Your task to perform on an android device: What's on my calendar today? Image 0: 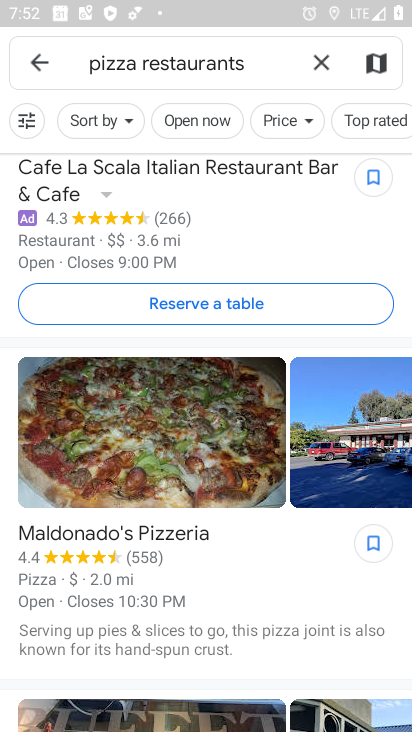
Step 0: press home button
Your task to perform on an android device: What's on my calendar today? Image 1: 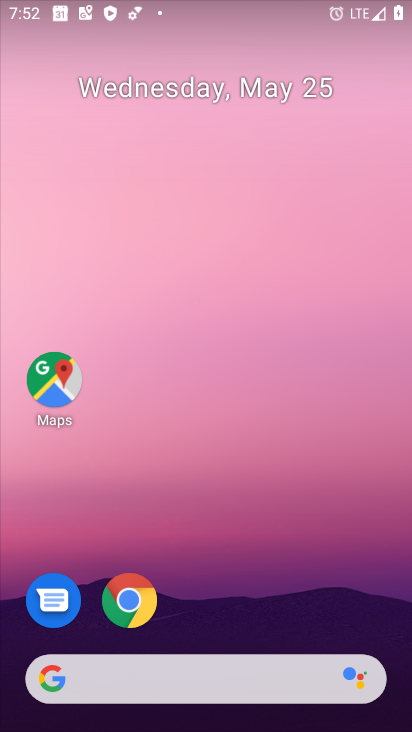
Step 1: drag from (282, 528) to (235, 82)
Your task to perform on an android device: What's on my calendar today? Image 2: 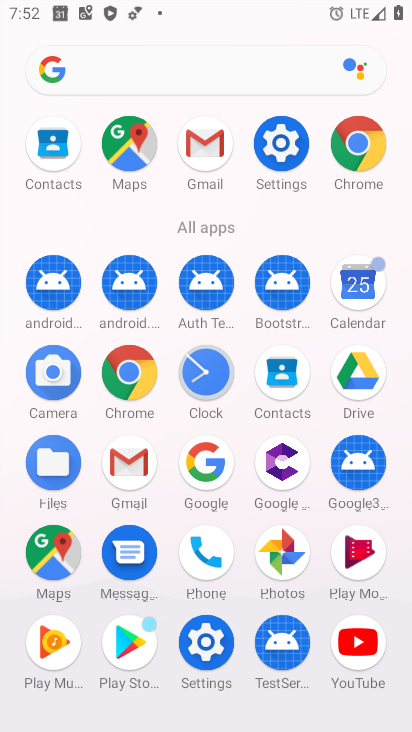
Step 2: click (353, 287)
Your task to perform on an android device: What's on my calendar today? Image 3: 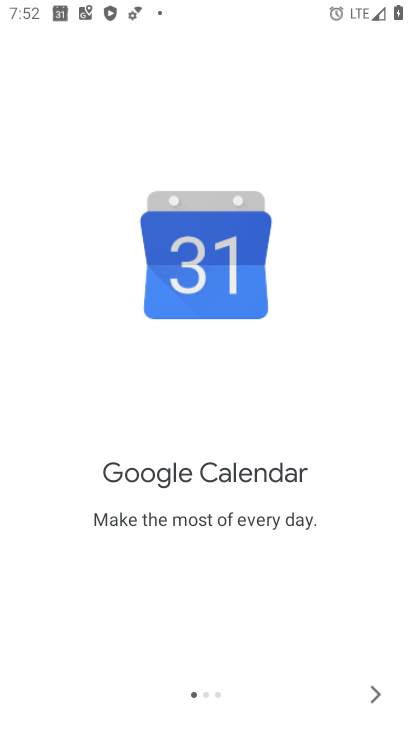
Step 3: click (375, 685)
Your task to perform on an android device: What's on my calendar today? Image 4: 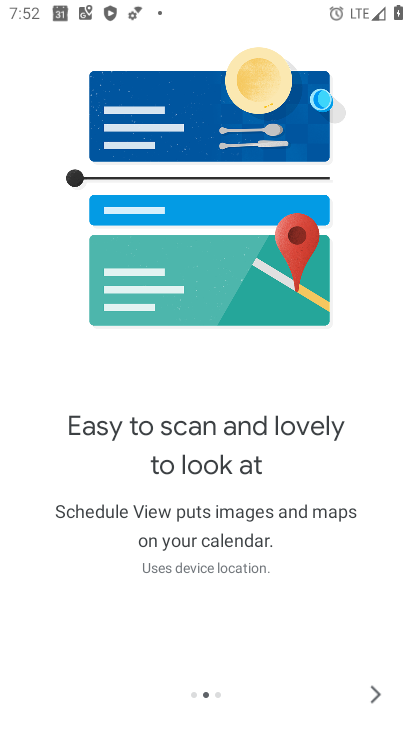
Step 4: click (375, 685)
Your task to perform on an android device: What's on my calendar today? Image 5: 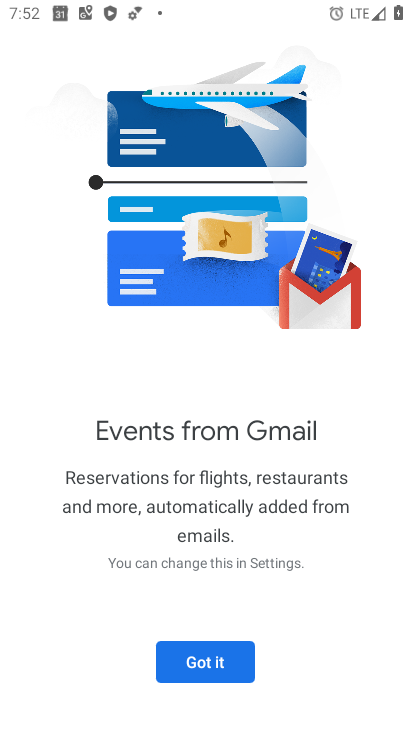
Step 5: click (242, 671)
Your task to perform on an android device: What's on my calendar today? Image 6: 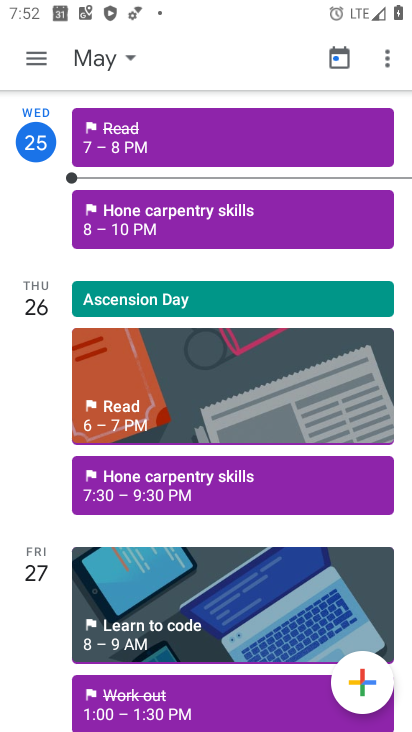
Step 6: click (96, 64)
Your task to perform on an android device: What's on my calendar today? Image 7: 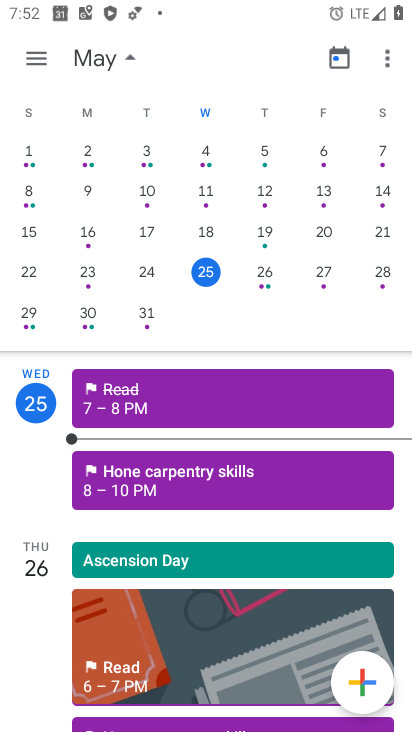
Step 7: click (201, 277)
Your task to perform on an android device: What's on my calendar today? Image 8: 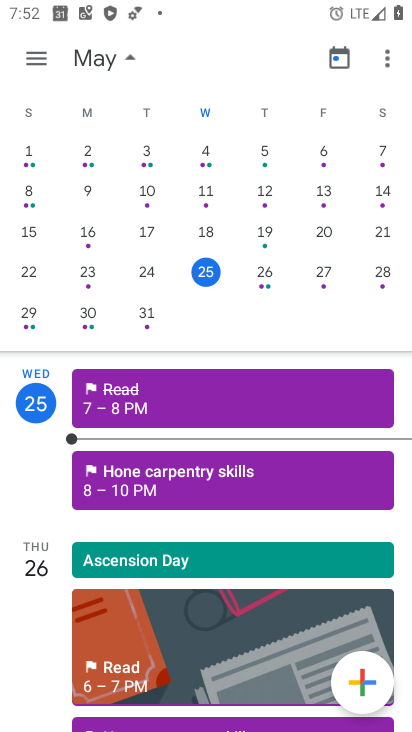
Step 8: task complete